Your task to perform on an android device: Open the Play Movies app and select the watchlist tab. Image 0: 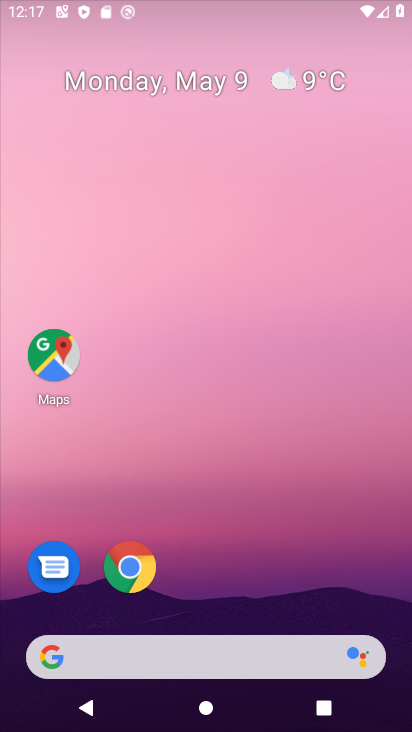
Step 0: drag from (281, 682) to (268, 129)
Your task to perform on an android device: Open the Play Movies app and select the watchlist tab. Image 1: 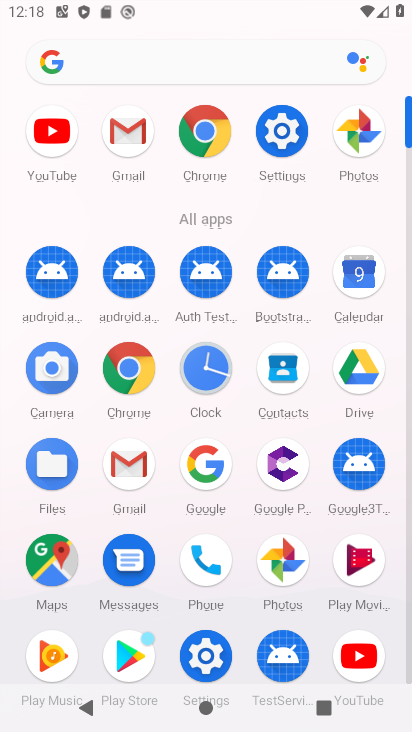
Step 1: click (344, 569)
Your task to perform on an android device: Open the Play Movies app and select the watchlist tab. Image 2: 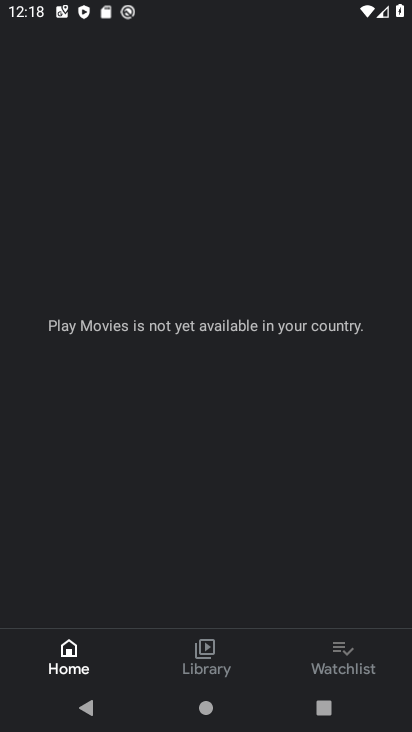
Step 2: click (361, 648)
Your task to perform on an android device: Open the Play Movies app and select the watchlist tab. Image 3: 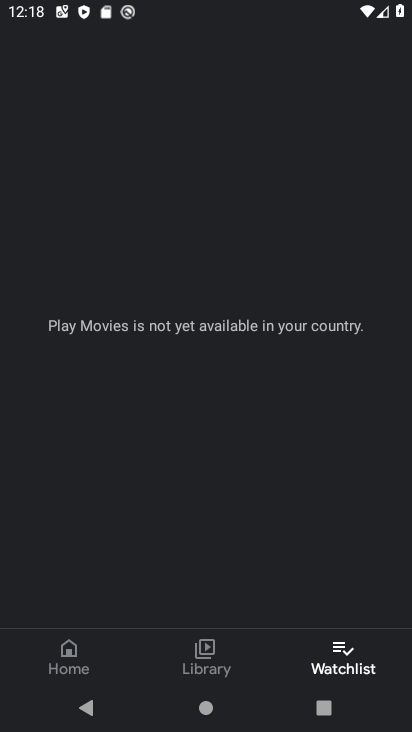
Step 3: task complete